Your task to perform on an android device: all mails in gmail Image 0: 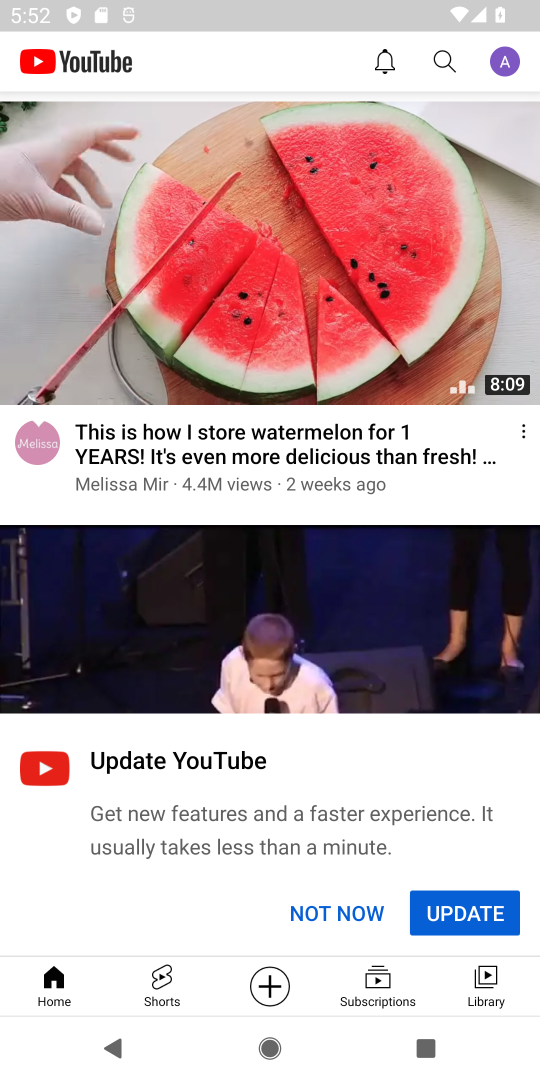
Step 0: press home button
Your task to perform on an android device: all mails in gmail Image 1: 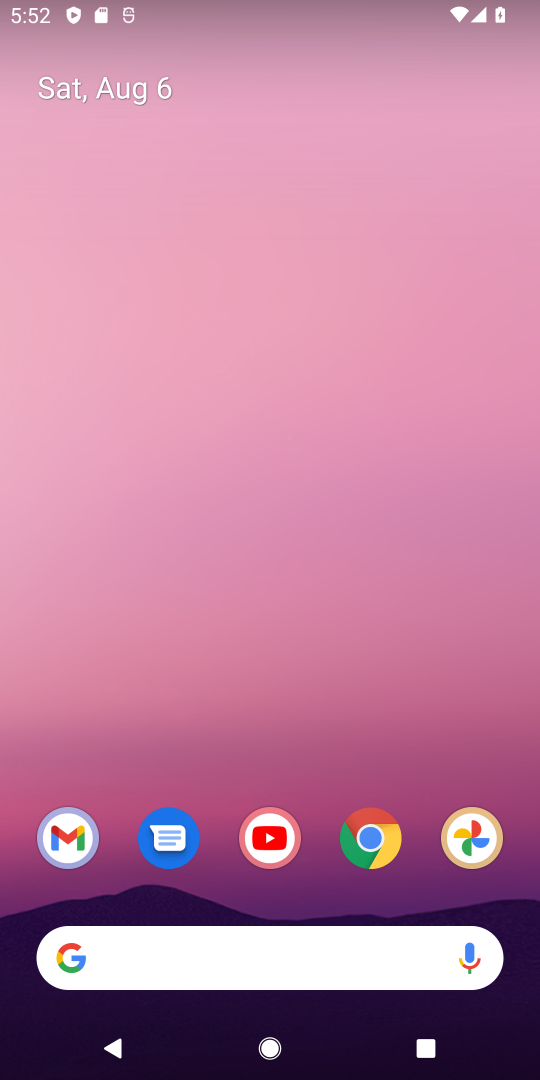
Step 1: click (53, 836)
Your task to perform on an android device: all mails in gmail Image 2: 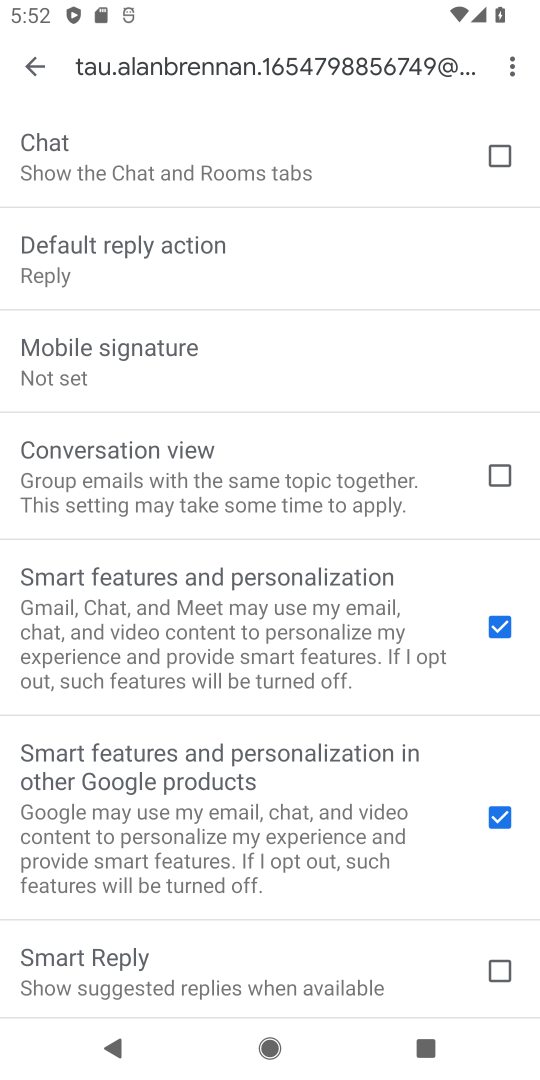
Step 2: click (22, 60)
Your task to perform on an android device: all mails in gmail Image 3: 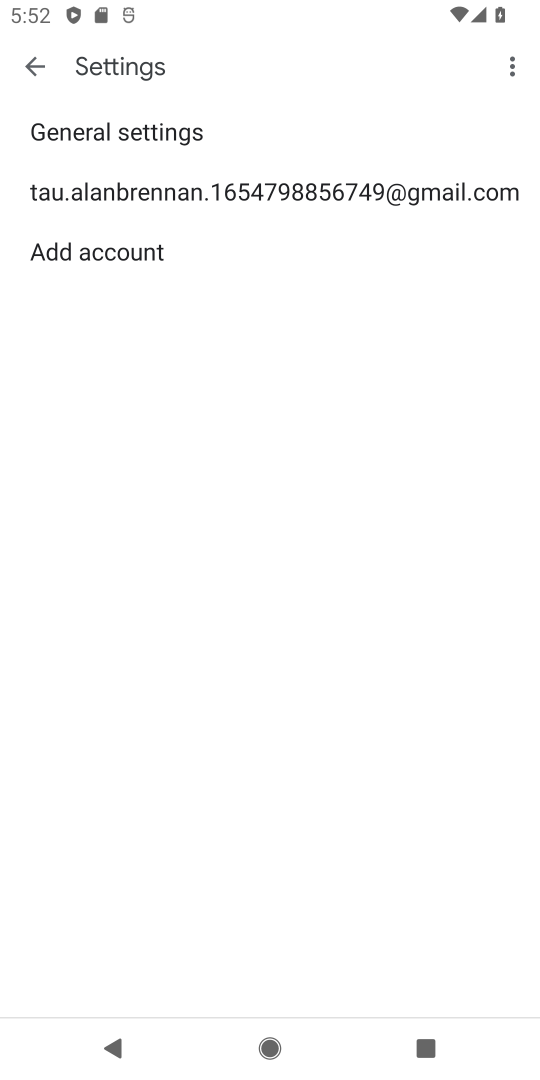
Step 3: click (22, 60)
Your task to perform on an android device: all mails in gmail Image 4: 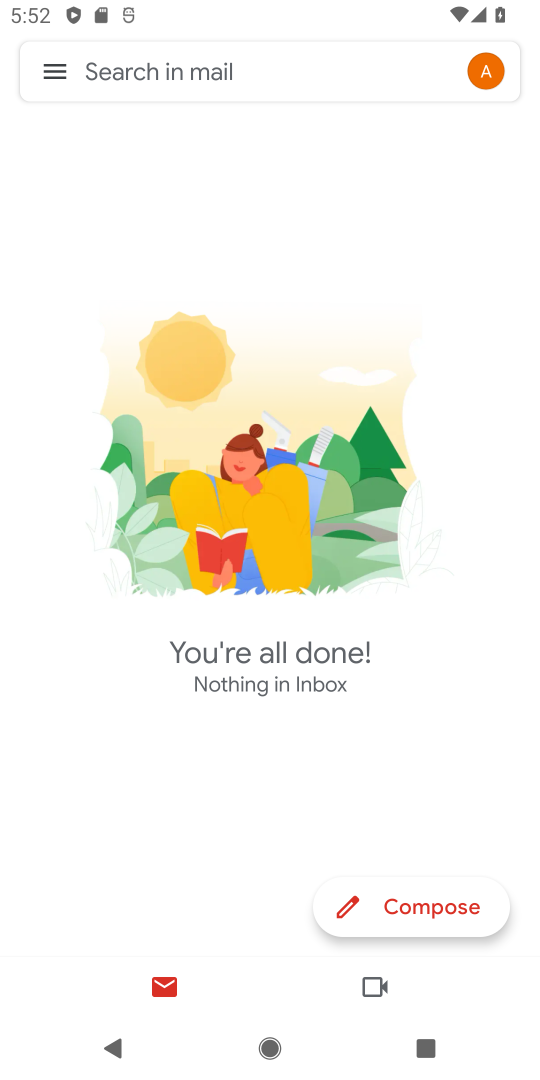
Step 4: click (48, 75)
Your task to perform on an android device: all mails in gmail Image 5: 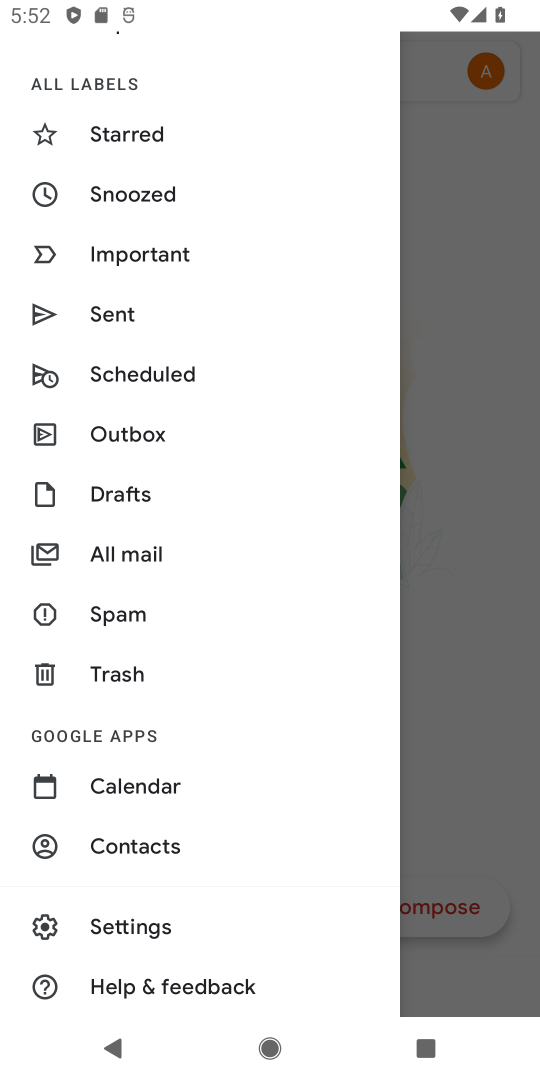
Step 5: click (134, 560)
Your task to perform on an android device: all mails in gmail Image 6: 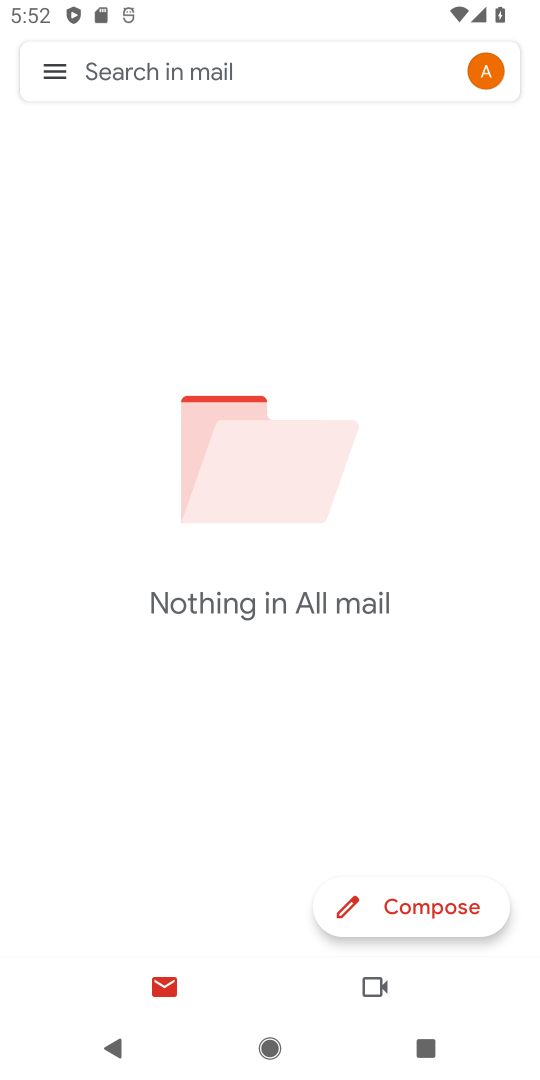
Step 6: task complete